Your task to perform on an android device: Open calendar and show me the second week of next month Image 0: 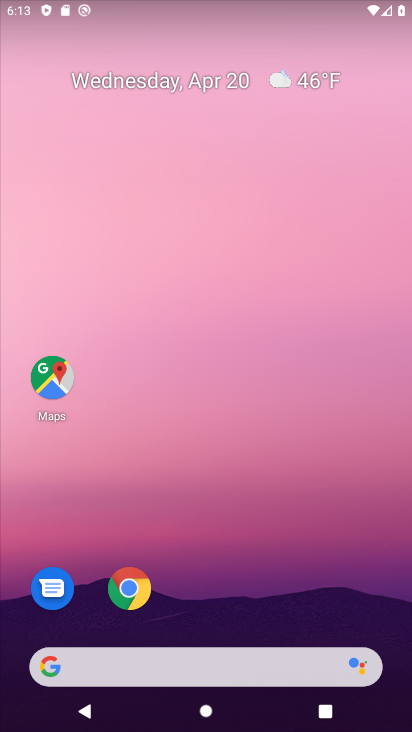
Step 0: drag from (321, 559) to (307, 93)
Your task to perform on an android device: Open calendar and show me the second week of next month Image 1: 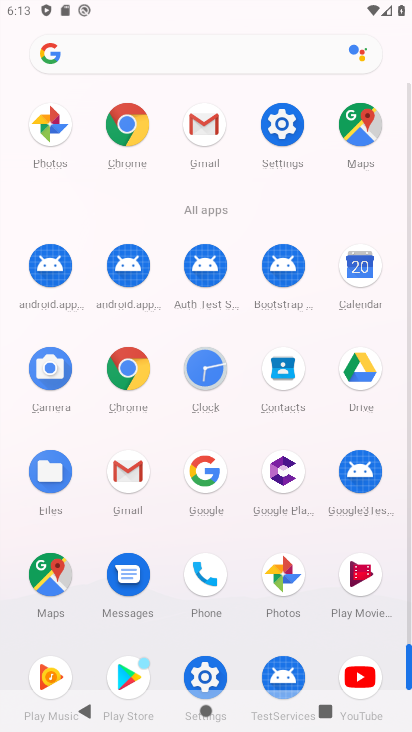
Step 1: click (361, 264)
Your task to perform on an android device: Open calendar and show me the second week of next month Image 2: 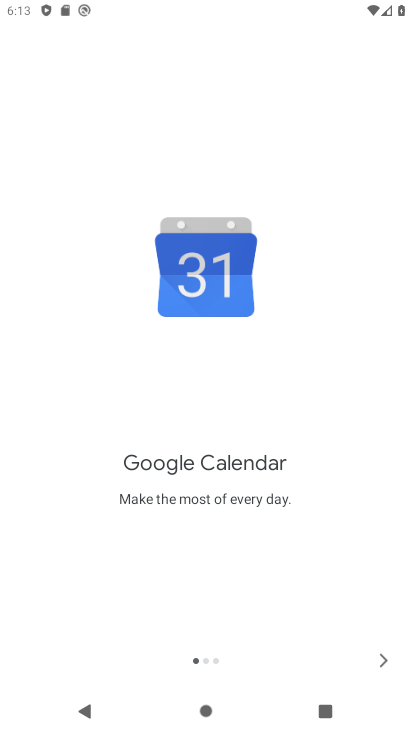
Step 2: click (382, 648)
Your task to perform on an android device: Open calendar and show me the second week of next month Image 3: 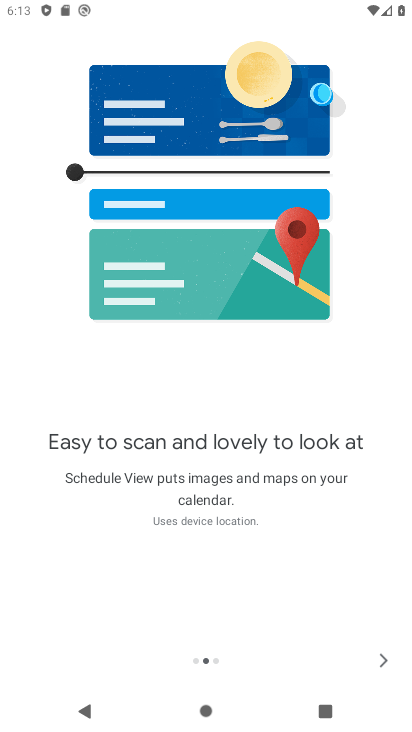
Step 3: click (382, 648)
Your task to perform on an android device: Open calendar and show me the second week of next month Image 4: 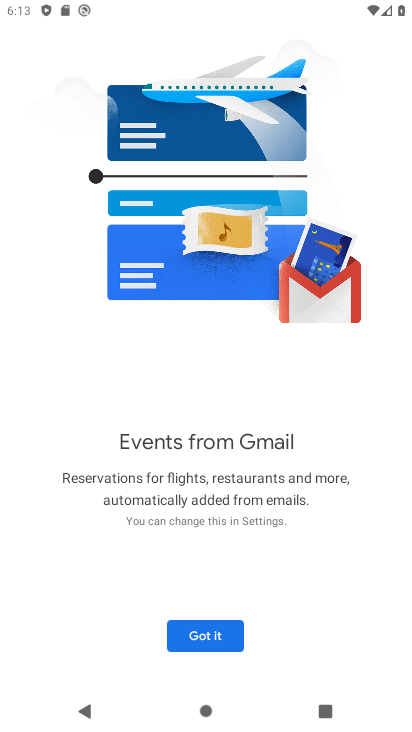
Step 4: click (212, 640)
Your task to perform on an android device: Open calendar and show me the second week of next month Image 5: 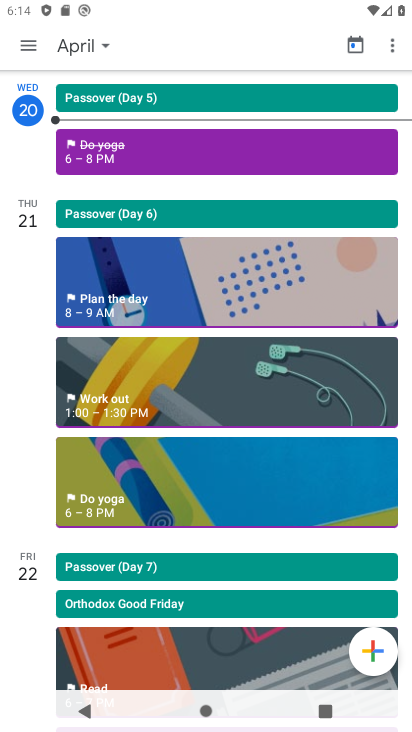
Step 5: click (85, 38)
Your task to perform on an android device: Open calendar and show me the second week of next month Image 6: 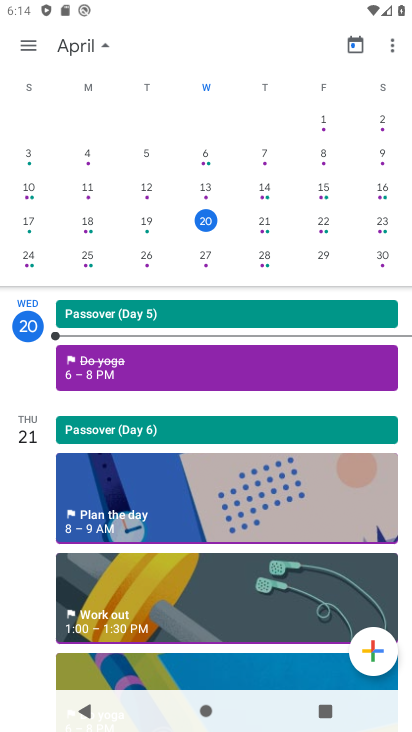
Step 6: drag from (385, 163) to (0, 173)
Your task to perform on an android device: Open calendar and show me the second week of next month Image 7: 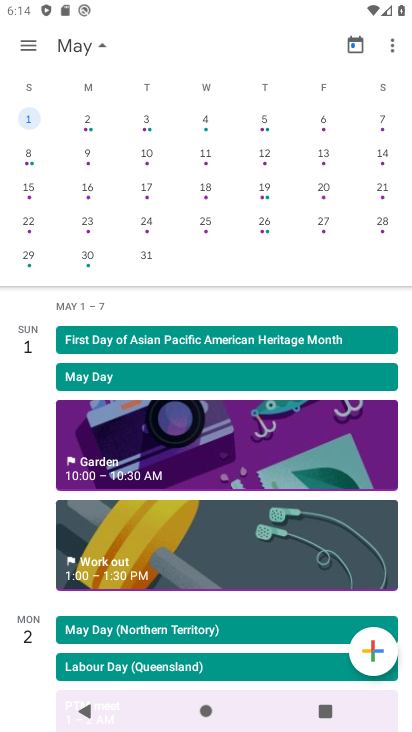
Step 7: click (144, 155)
Your task to perform on an android device: Open calendar and show me the second week of next month Image 8: 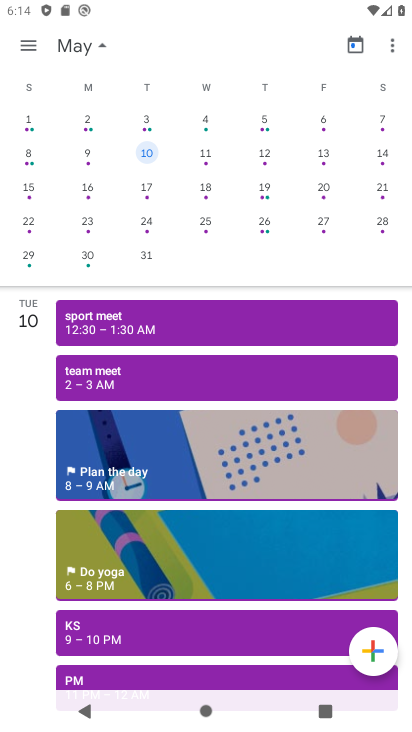
Step 8: task complete